Your task to perform on an android device: Clear the shopping cart on newegg.com. Add "usb-b" to the cart on newegg.com Image 0: 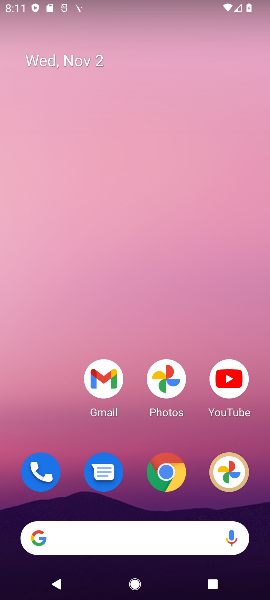
Step 0: click (36, 539)
Your task to perform on an android device: Clear the shopping cart on newegg.com. Add "usb-b" to the cart on newegg.com Image 1: 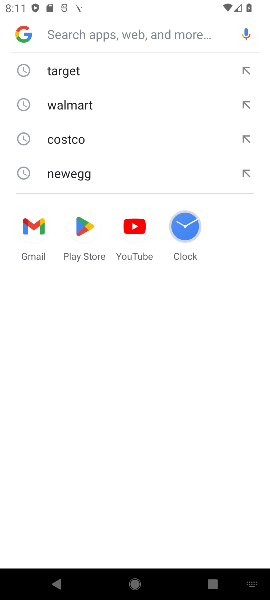
Step 1: click (73, 179)
Your task to perform on an android device: Clear the shopping cart on newegg.com. Add "usb-b" to the cart on newegg.com Image 2: 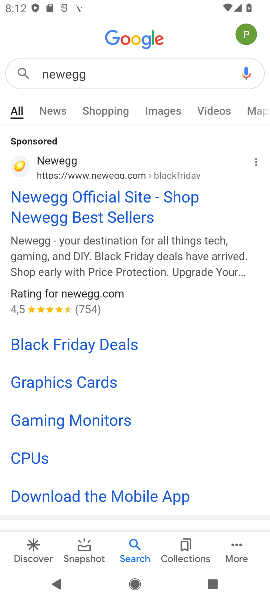
Step 2: click (75, 205)
Your task to perform on an android device: Clear the shopping cart on newegg.com. Add "usb-b" to the cart on newegg.com Image 3: 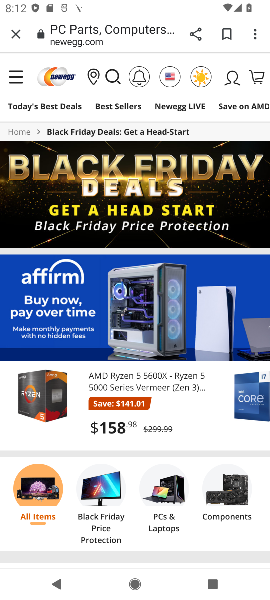
Step 3: click (112, 78)
Your task to perform on an android device: Clear the shopping cart on newegg.com. Add "usb-b" to the cart on newegg.com Image 4: 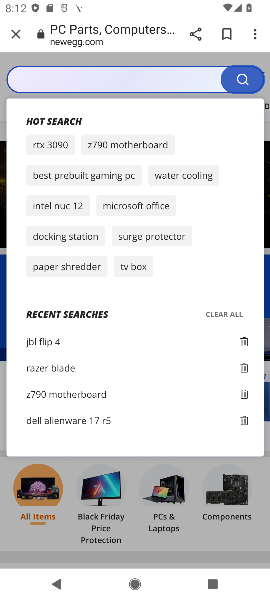
Step 4: click (171, 78)
Your task to perform on an android device: Clear the shopping cart on newegg.com. Add "usb-b" to the cart on newegg.com Image 5: 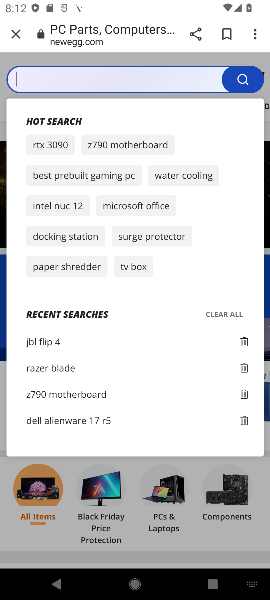
Step 5: type "usb-b"
Your task to perform on an android device: Clear the shopping cart on newegg.com. Add "usb-b" to the cart on newegg.com Image 6: 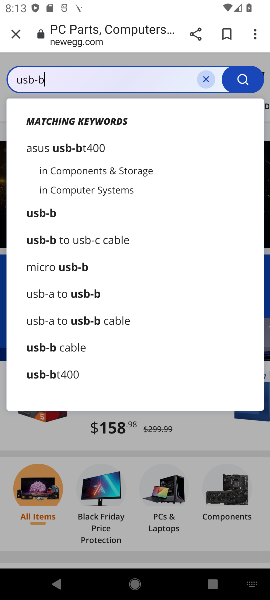
Step 6: click (50, 148)
Your task to perform on an android device: Clear the shopping cart on newegg.com. Add "usb-b" to the cart on newegg.com Image 7: 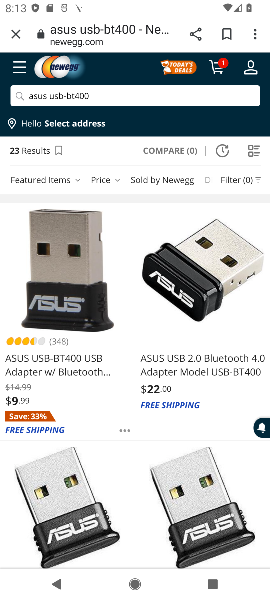
Step 7: click (59, 302)
Your task to perform on an android device: Clear the shopping cart on newegg.com. Add "usb-b" to the cart on newegg.com Image 8: 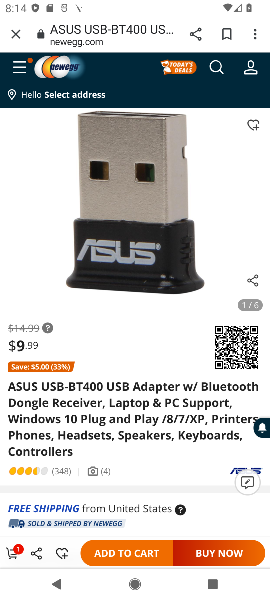
Step 8: click (115, 555)
Your task to perform on an android device: Clear the shopping cart on newegg.com. Add "usb-b" to the cart on newegg.com Image 9: 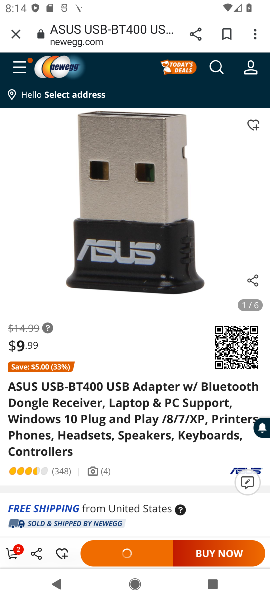
Step 9: task complete